Your task to perform on an android device: Open Android settings Image 0: 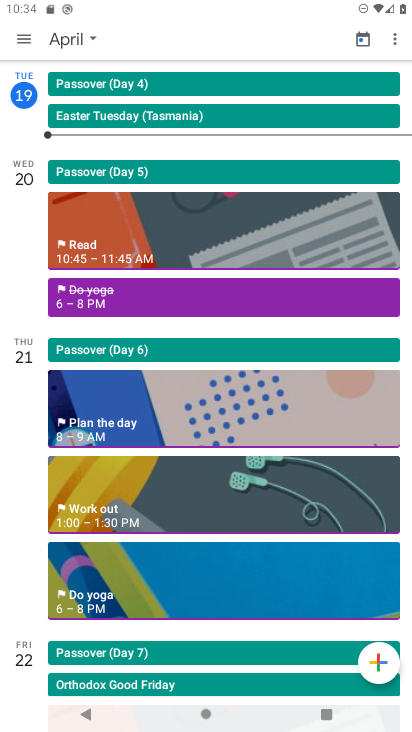
Step 0: press home button
Your task to perform on an android device: Open Android settings Image 1: 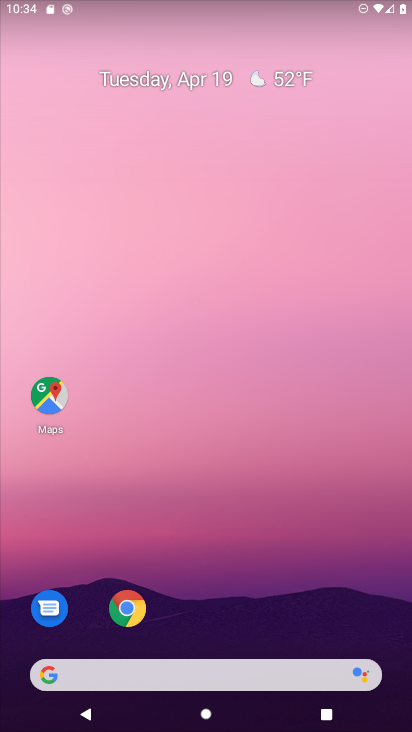
Step 1: drag from (282, 519) to (225, 68)
Your task to perform on an android device: Open Android settings Image 2: 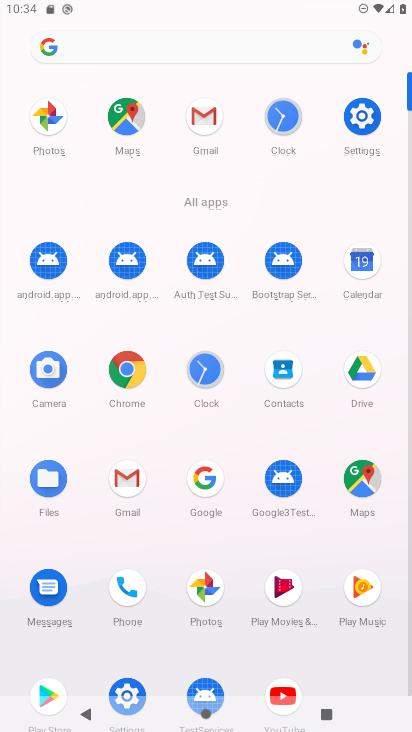
Step 2: click (366, 123)
Your task to perform on an android device: Open Android settings Image 3: 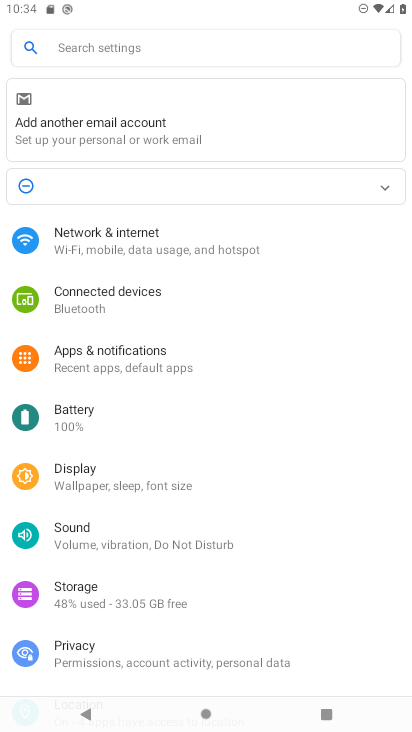
Step 3: drag from (203, 622) to (168, 176)
Your task to perform on an android device: Open Android settings Image 4: 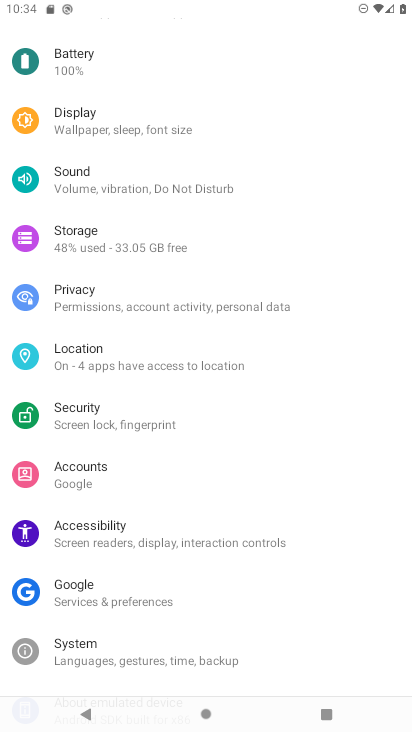
Step 4: drag from (180, 601) to (205, 169)
Your task to perform on an android device: Open Android settings Image 5: 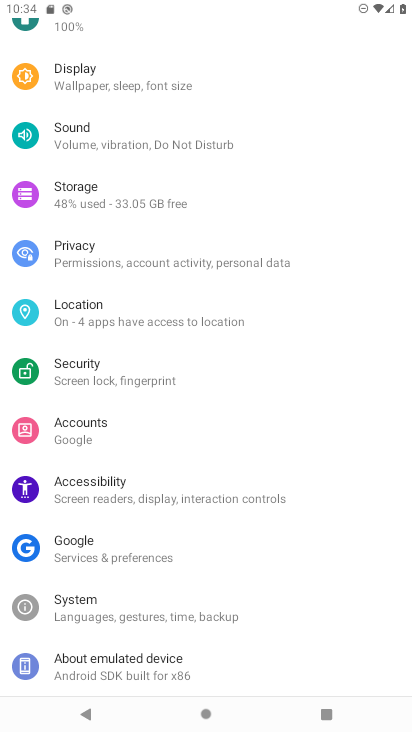
Step 5: click (80, 655)
Your task to perform on an android device: Open Android settings Image 6: 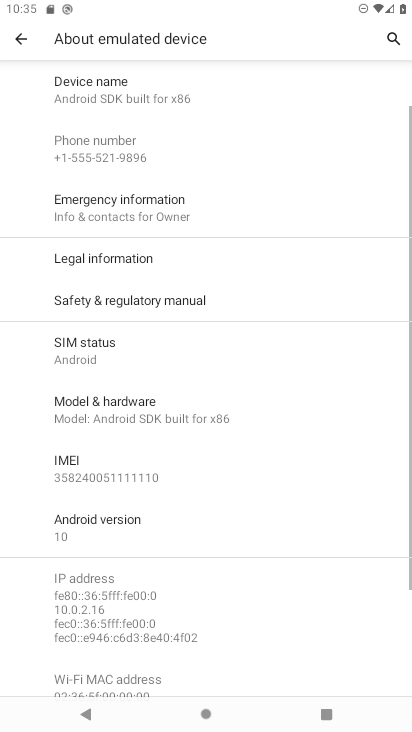
Step 6: task complete